Your task to perform on an android device: turn off picture-in-picture Image 0: 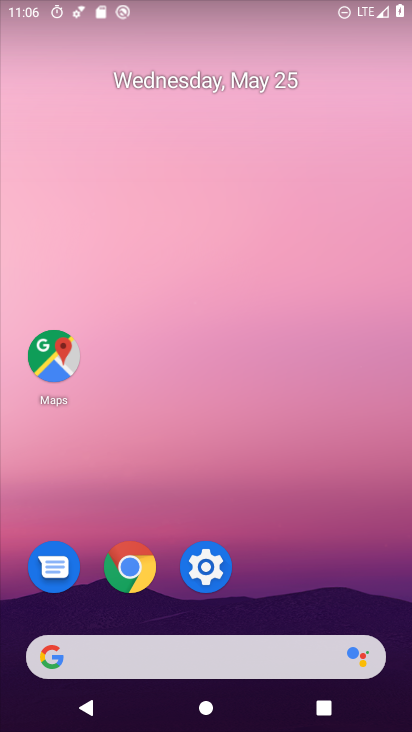
Step 0: drag from (264, 698) to (161, 73)
Your task to perform on an android device: turn off picture-in-picture Image 1: 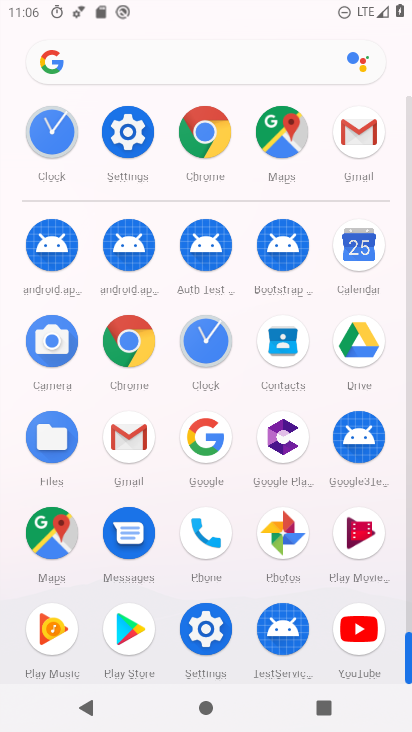
Step 1: click (198, 129)
Your task to perform on an android device: turn off picture-in-picture Image 2: 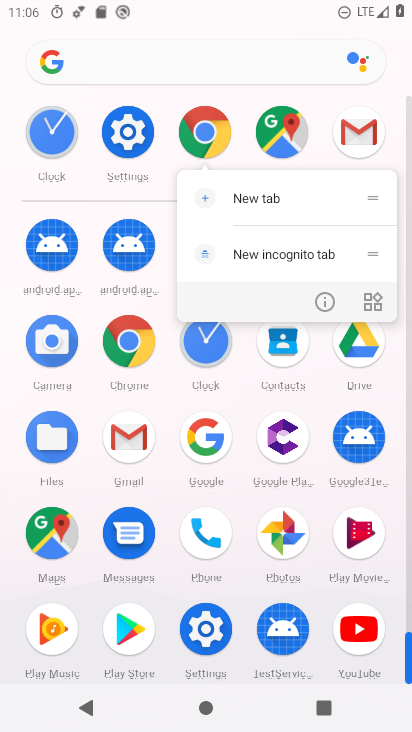
Step 2: click (329, 301)
Your task to perform on an android device: turn off picture-in-picture Image 3: 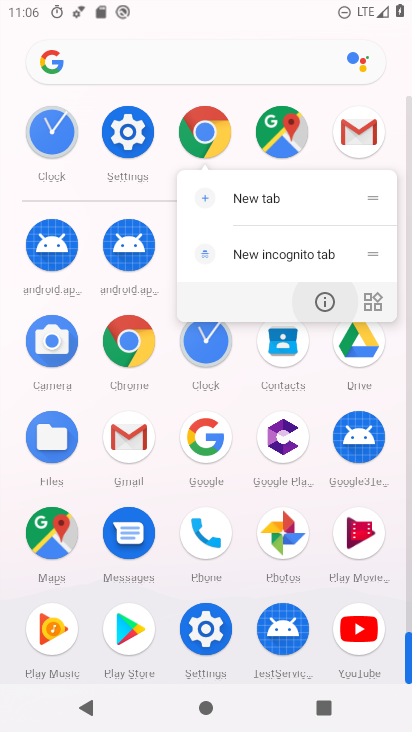
Step 3: click (329, 301)
Your task to perform on an android device: turn off picture-in-picture Image 4: 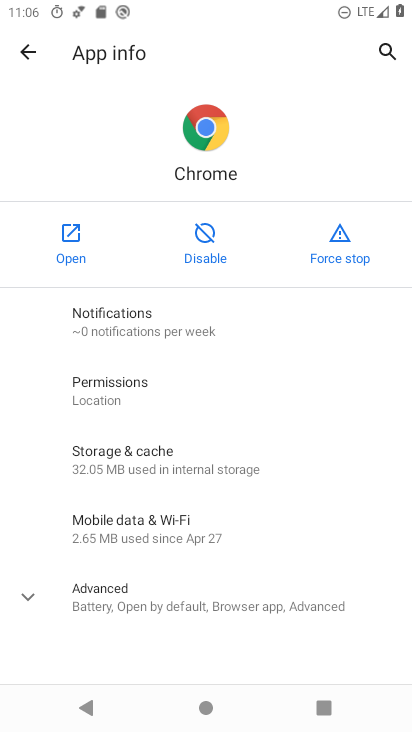
Step 4: drag from (91, 504) to (100, 151)
Your task to perform on an android device: turn off picture-in-picture Image 5: 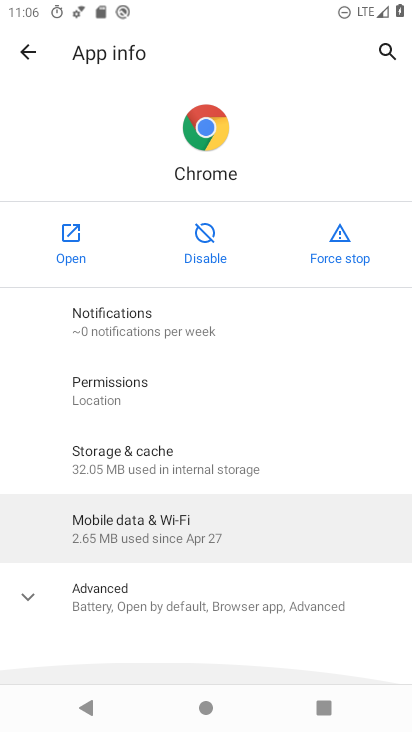
Step 5: drag from (165, 432) to (249, 138)
Your task to perform on an android device: turn off picture-in-picture Image 6: 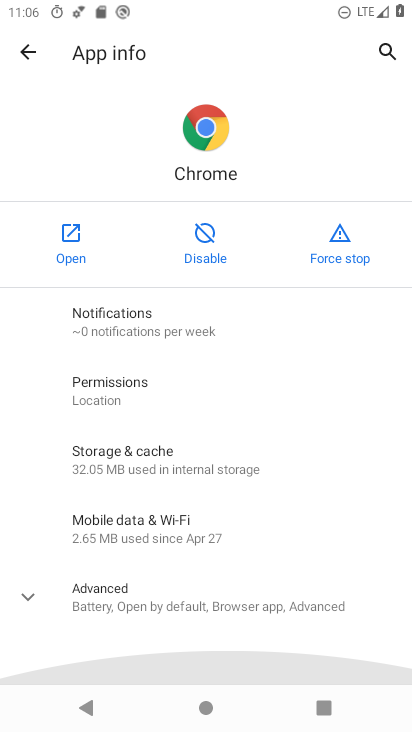
Step 6: drag from (208, 488) to (240, 113)
Your task to perform on an android device: turn off picture-in-picture Image 7: 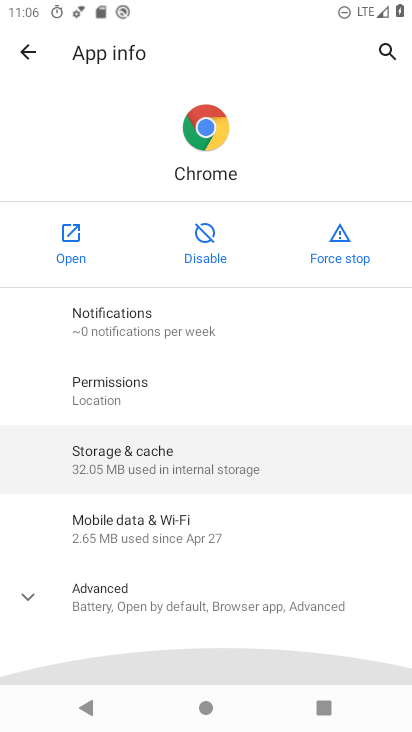
Step 7: drag from (161, 525) to (221, 161)
Your task to perform on an android device: turn off picture-in-picture Image 8: 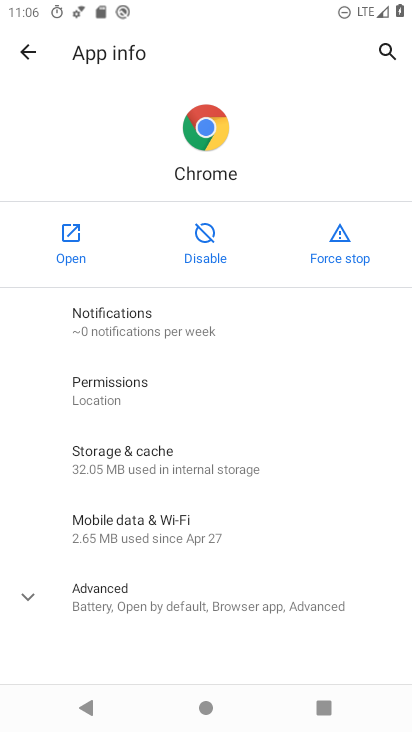
Step 8: click (83, 610)
Your task to perform on an android device: turn off picture-in-picture Image 9: 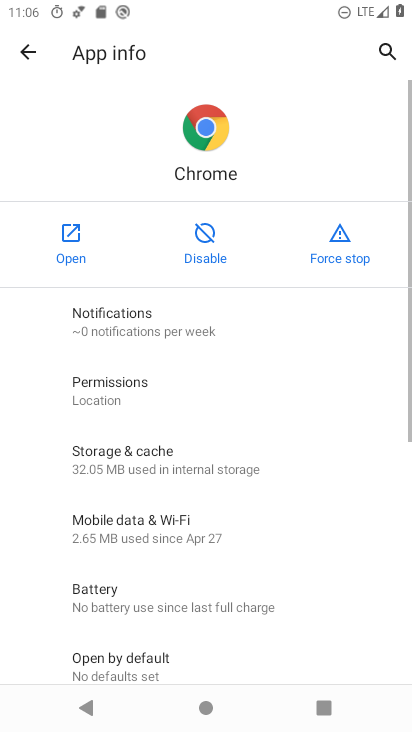
Step 9: drag from (136, 535) to (117, 90)
Your task to perform on an android device: turn off picture-in-picture Image 10: 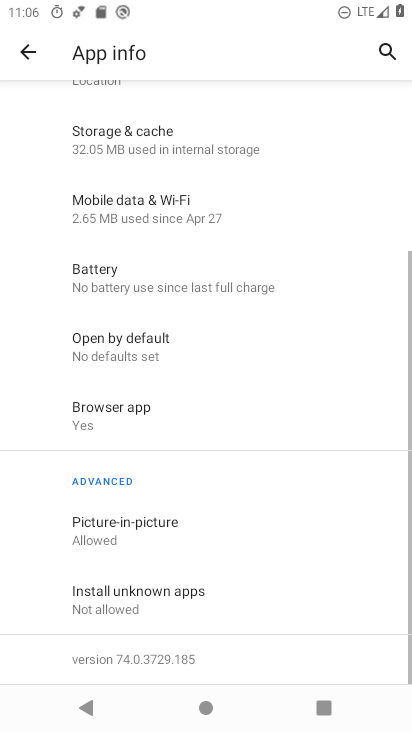
Step 10: drag from (130, 415) to (67, 232)
Your task to perform on an android device: turn off picture-in-picture Image 11: 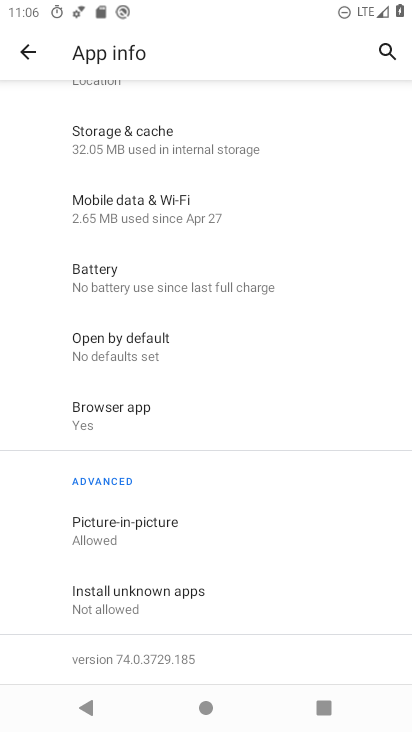
Step 11: click (91, 499)
Your task to perform on an android device: turn off picture-in-picture Image 12: 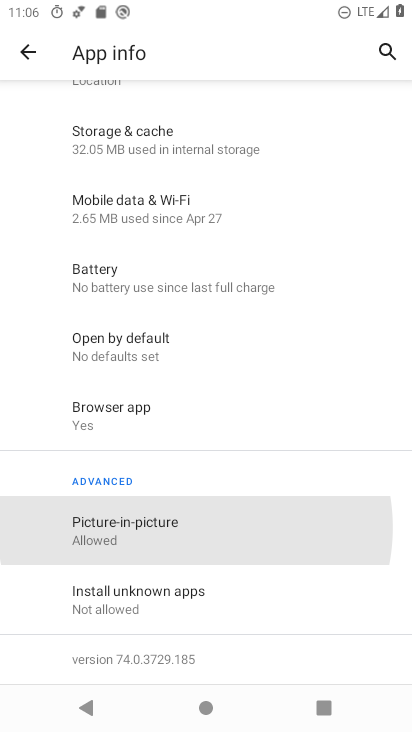
Step 12: click (93, 514)
Your task to perform on an android device: turn off picture-in-picture Image 13: 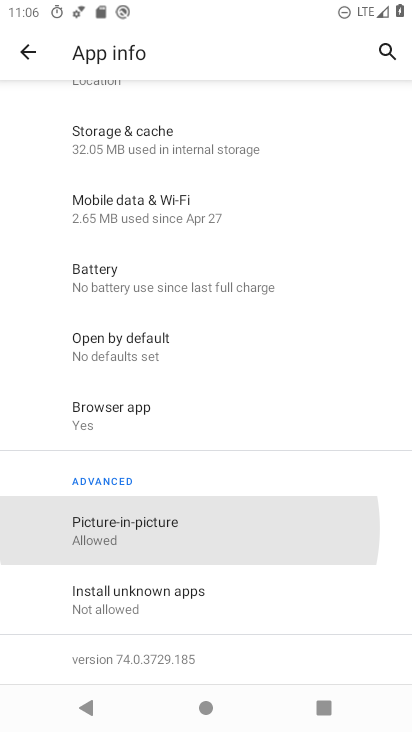
Step 13: click (93, 515)
Your task to perform on an android device: turn off picture-in-picture Image 14: 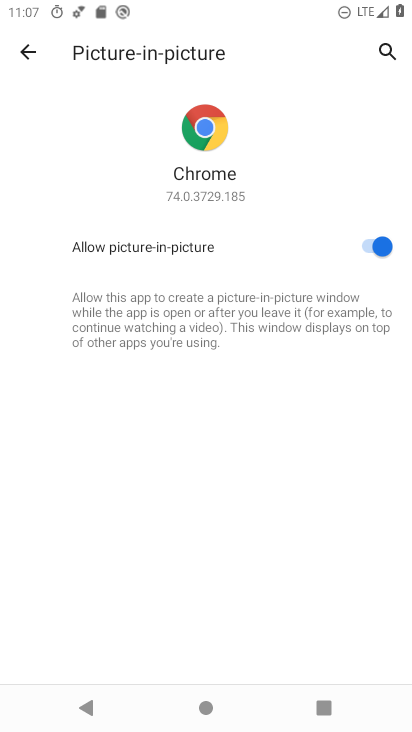
Step 14: click (375, 239)
Your task to perform on an android device: turn off picture-in-picture Image 15: 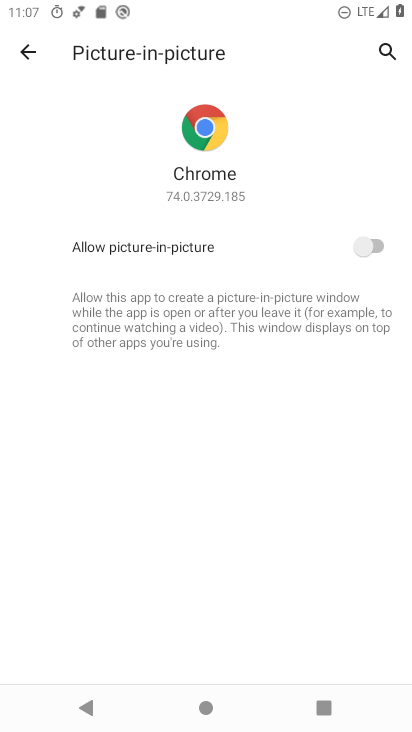
Step 15: task complete